Your task to perform on an android device: turn off improve location accuracy Image 0: 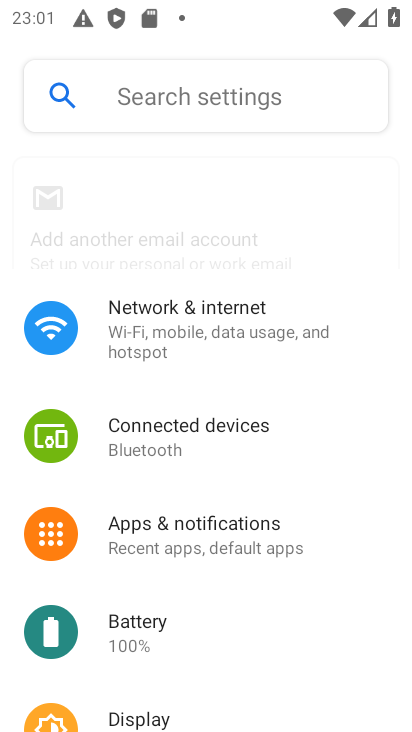
Step 0: click (215, 371)
Your task to perform on an android device: turn off improve location accuracy Image 1: 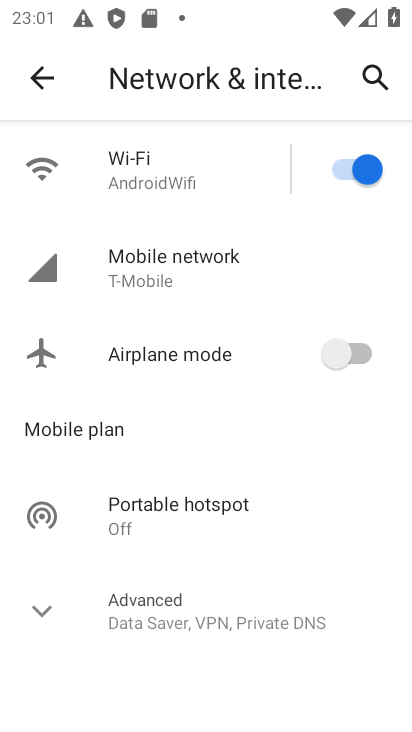
Step 1: press back button
Your task to perform on an android device: turn off improve location accuracy Image 2: 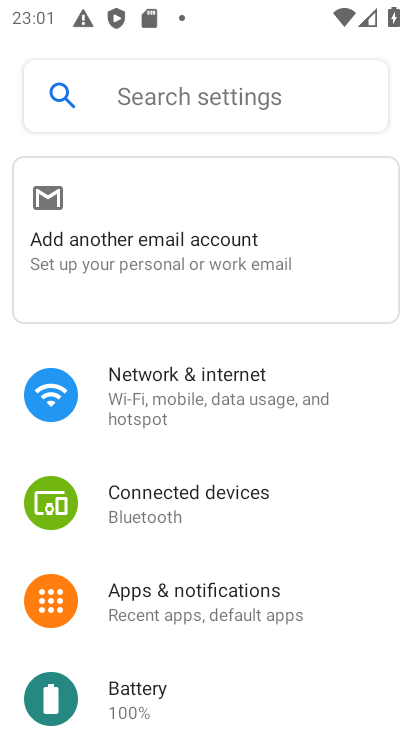
Step 2: drag from (208, 640) to (162, 333)
Your task to perform on an android device: turn off improve location accuracy Image 3: 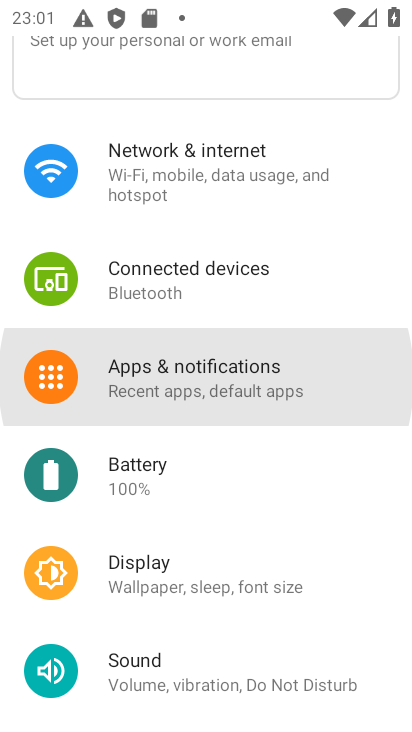
Step 3: drag from (164, 568) to (164, 299)
Your task to perform on an android device: turn off improve location accuracy Image 4: 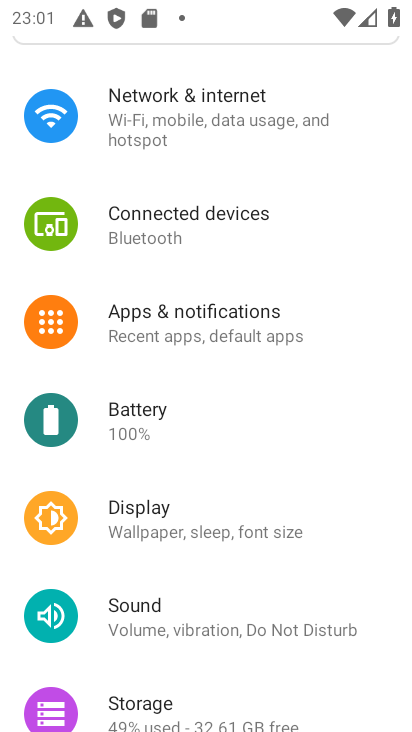
Step 4: drag from (255, 584) to (261, 275)
Your task to perform on an android device: turn off improve location accuracy Image 5: 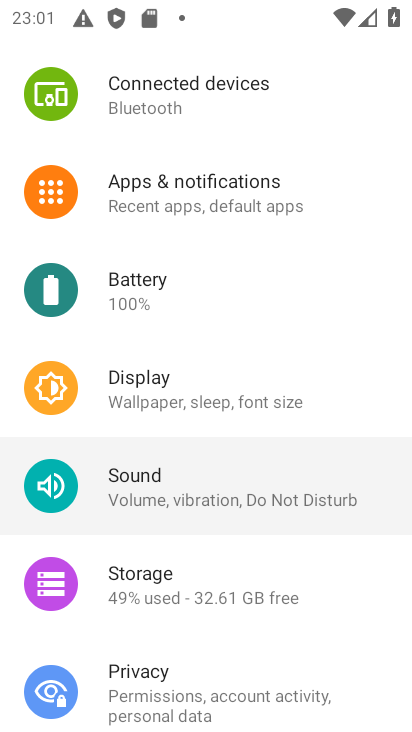
Step 5: drag from (219, 509) to (219, 340)
Your task to perform on an android device: turn off improve location accuracy Image 6: 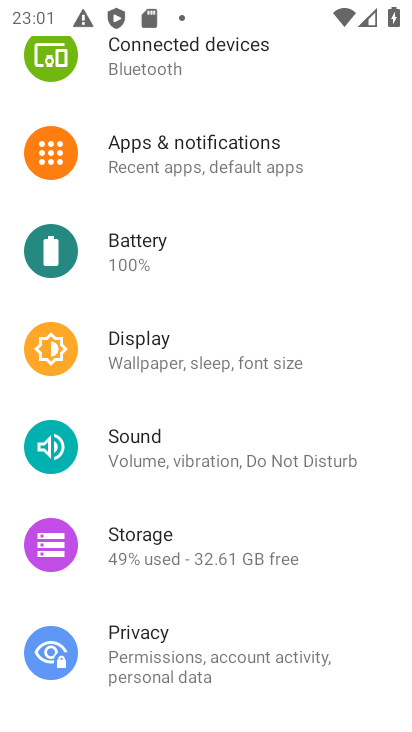
Step 6: drag from (217, 520) to (202, 376)
Your task to perform on an android device: turn off improve location accuracy Image 7: 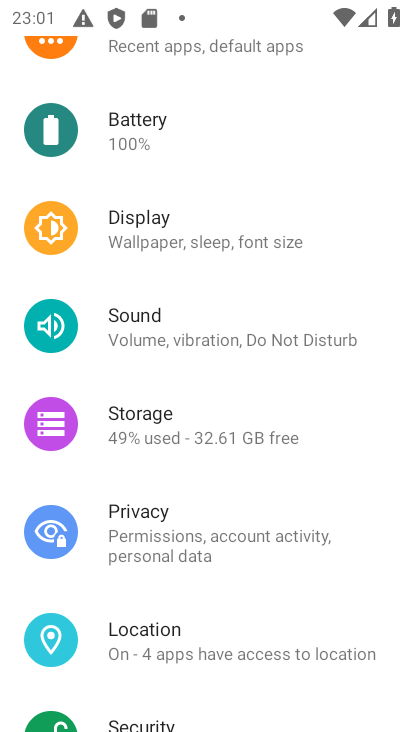
Step 7: drag from (223, 540) to (206, 259)
Your task to perform on an android device: turn off improve location accuracy Image 8: 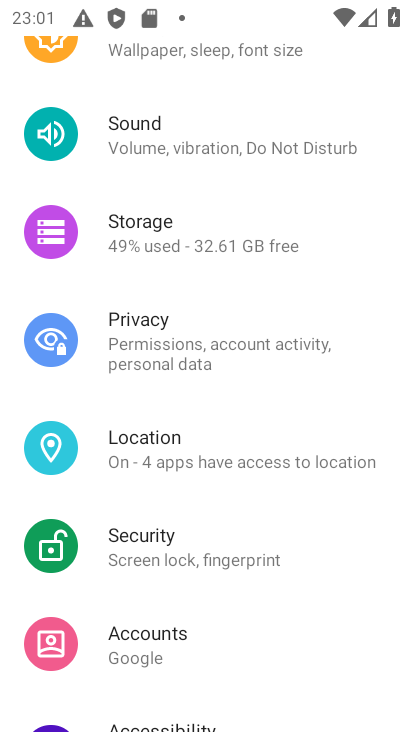
Step 8: drag from (206, 534) to (206, 365)
Your task to perform on an android device: turn off improve location accuracy Image 9: 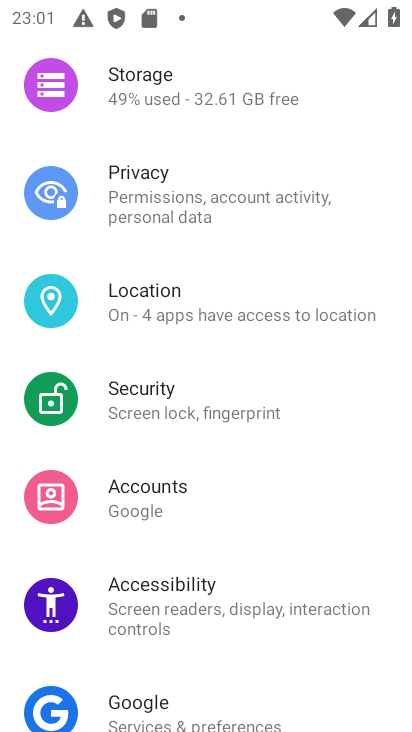
Step 9: click (143, 299)
Your task to perform on an android device: turn off improve location accuracy Image 10: 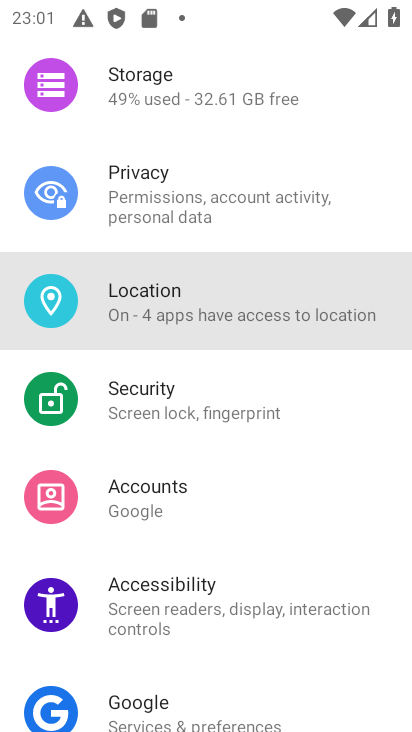
Step 10: click (143, 299)
Your task to perform on an android device: turn off improve location accuracy Image 11: 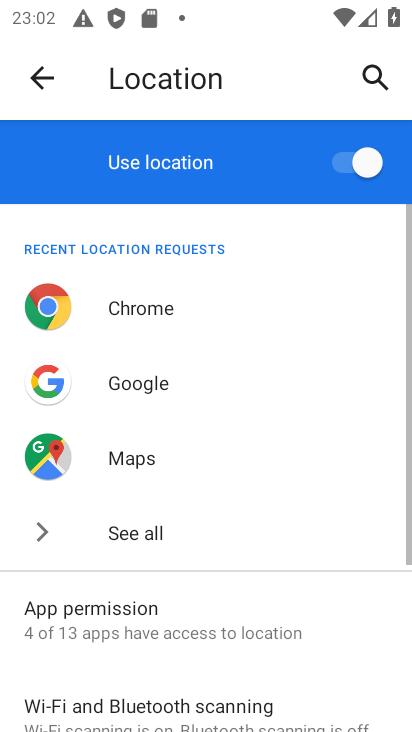
Step 11: drag from (174, 547) to (166, 245)
Your task to perform on an android device: turn off improve location accuracy Image 12: 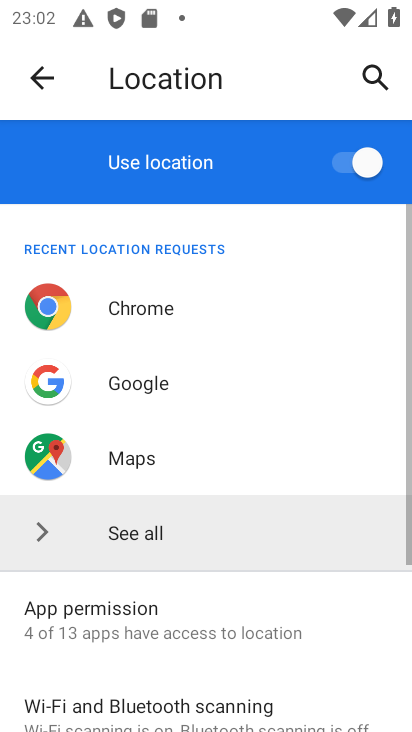
Step 12: drag from (223, 457) to (249, 289)
Your task to perform on an android device: turn off improve location accuracy Image 13: 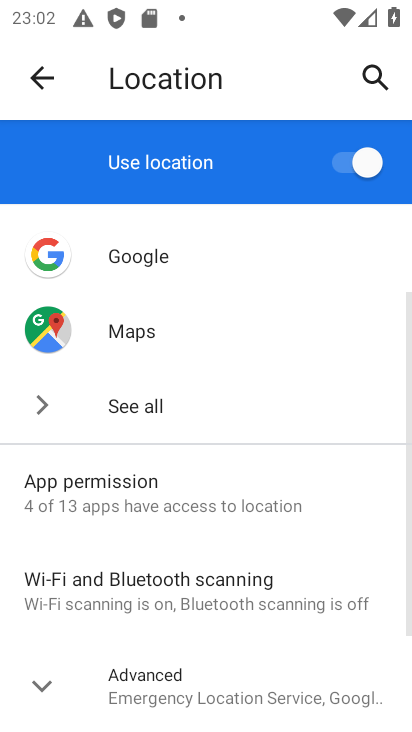
Step 13: drag from (217, 581) to (211, 417)
Your task to perform on an android device: turn off improve location accuracy Image 14: 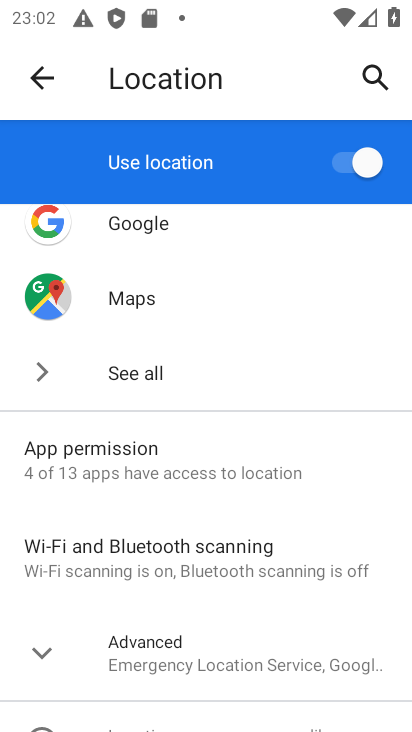
Step 14: click (159, 663)
Your task to perform on an android device: turn off improve location accuracy Image 15: 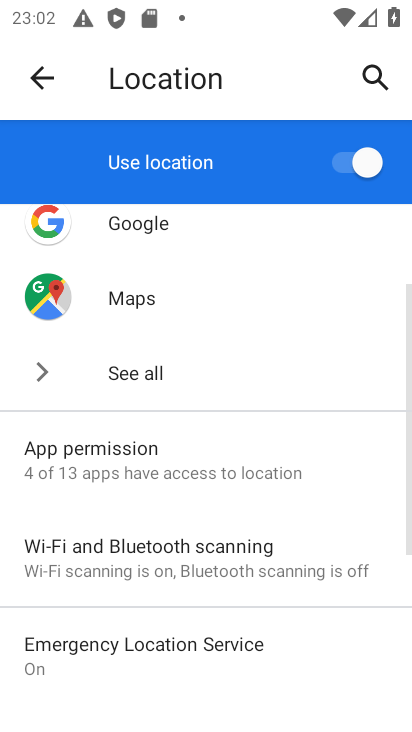
Step 15: drag from (163, 554) to (167, 388)
Your task to perform on an android device: turn off improve location accuracy Image 16: 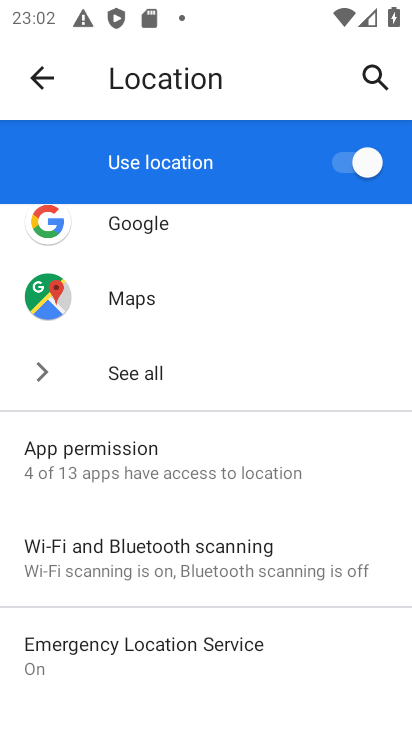
Step 16: drag from (237, 653) to (208, 441)
Your task to perform on an android device: turn off improve location accuracy Image 17: 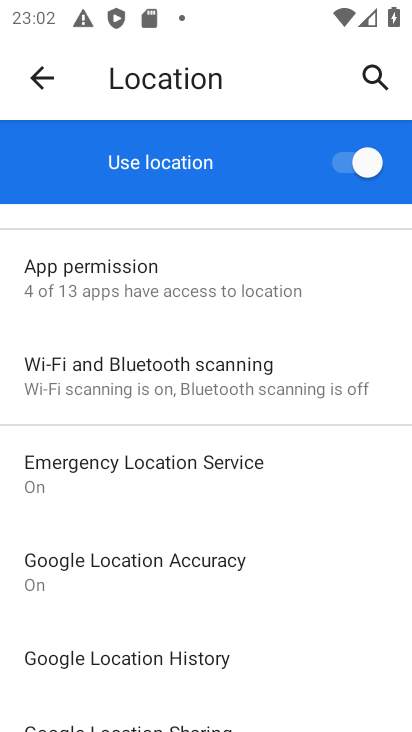
Step 17: drag from (284, 529) to (278, 395)
Your task to perform on an android device: turn off improve location accuracy Image 18: 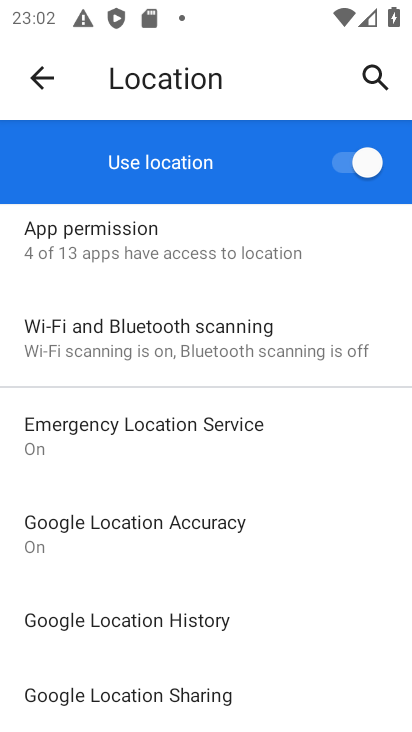
Step 18: click (94, 514)
Your task to perform on an android device: turn off improve location accuracy Image 19: 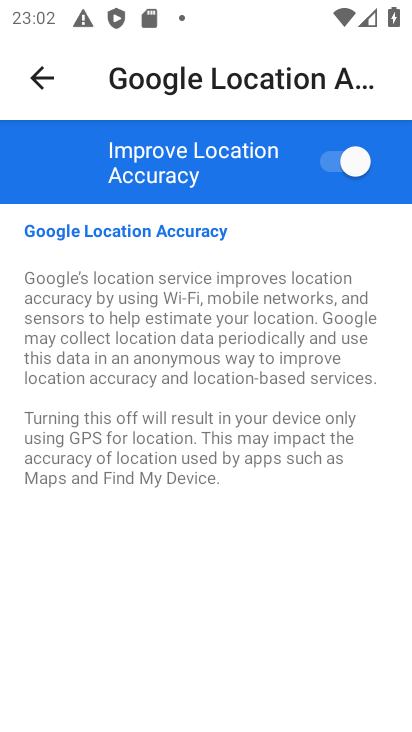
Step 19: click (339, 159)
Your task to perform on an android device: turn off improve location accuracy Image 20: 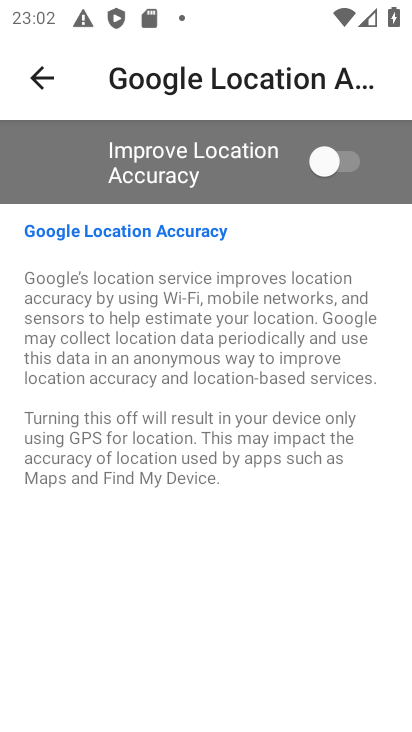
Step 20: task complete